Your task to perform on an android device: Open Reddit.com Image 0: 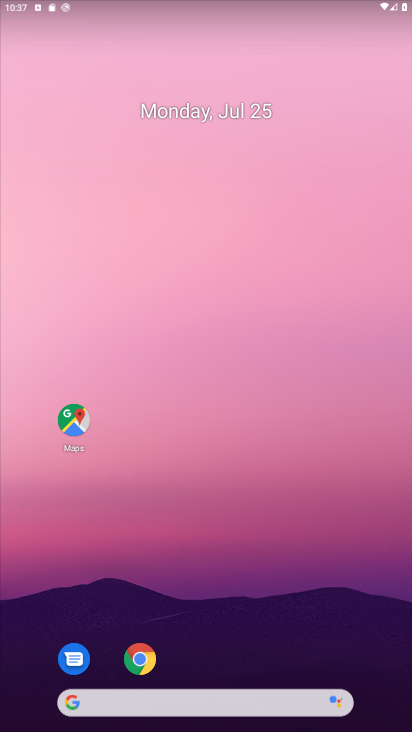
Step 0: click (149, 675)
Your task to perform on an android device: Open Reddit.com Image 1: 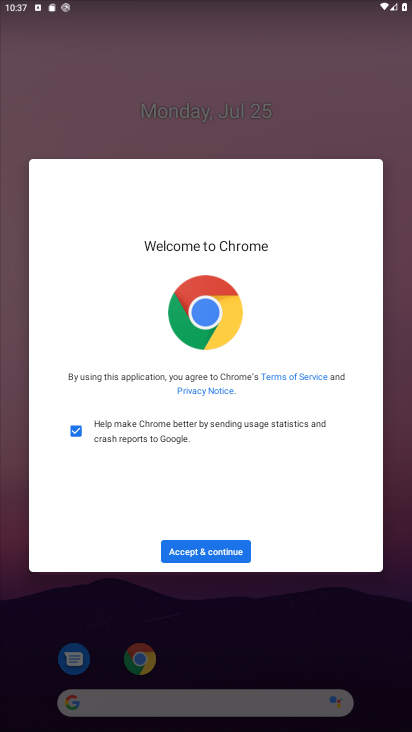
Step 1: click (232, 543)
Your task to perform on an android device: Open Reddit.com Image 2: 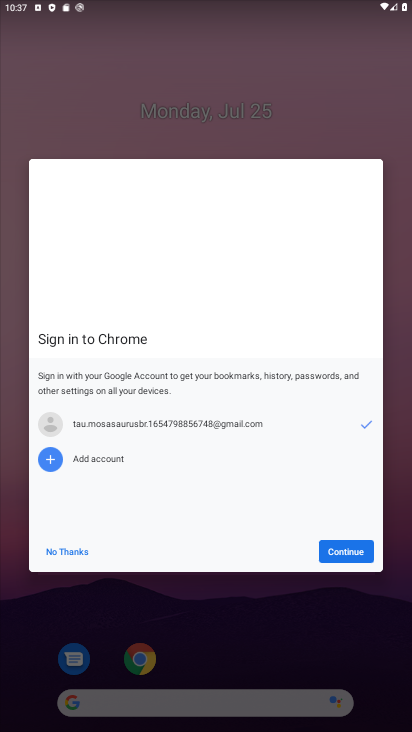
Step 2: click (319, 545)
Your task to perform on an android device: Open Reddit.com Image 3: 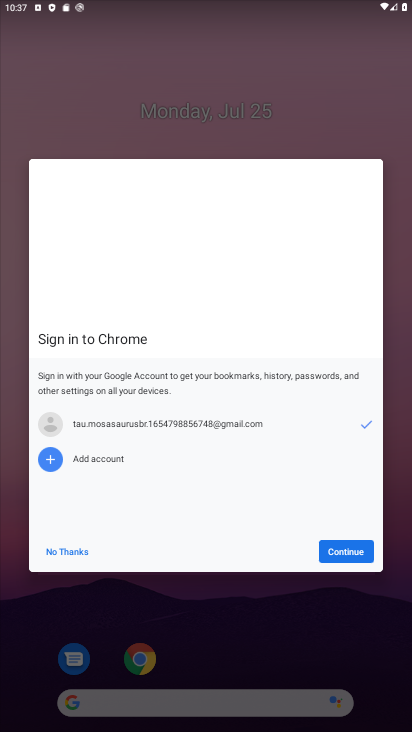
Step 3: click (324, 545)
Your task to perform on an android device: Open Reddit.com Image 4: 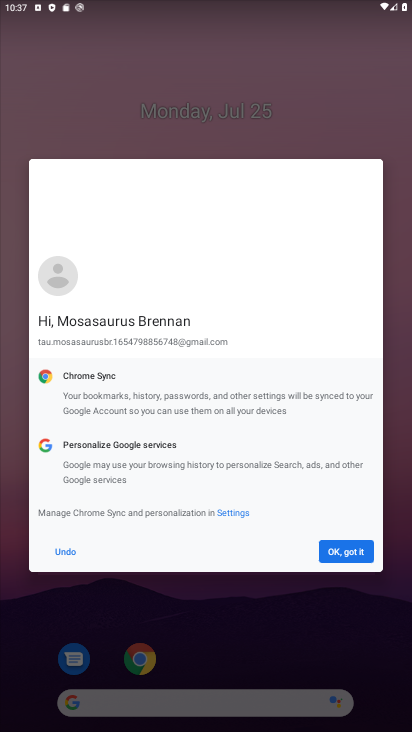
Step 4: click (324, 545)
Your task to perform on an android device: Open Reddit.com Image 5: 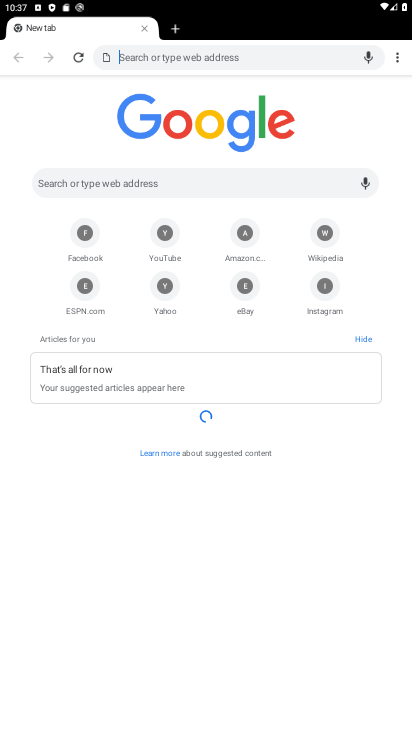
Step 5: click (231, 177)
Your task to perform on an android device: Open Reddit.com Image 6: 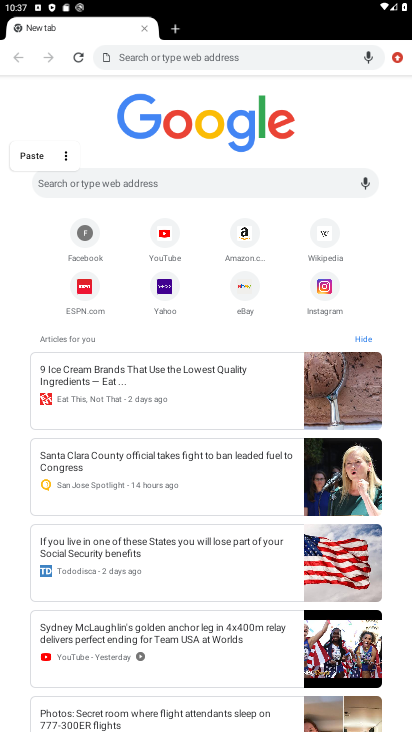
Step 6: type "Reddit.com"
Your task to perform on an android device: Open Reddit.com Image 7: 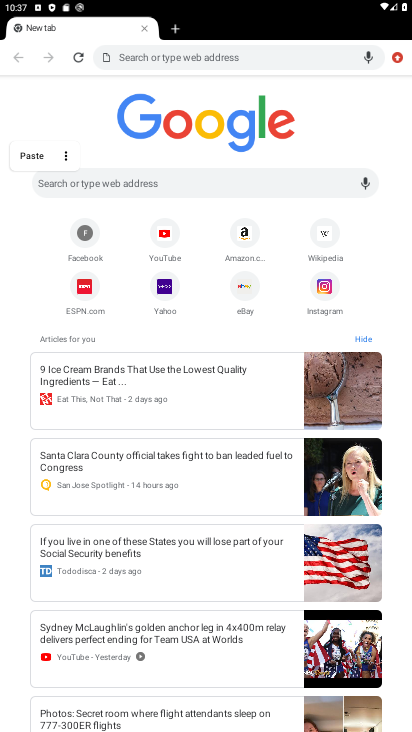
Step 7: click (93, 171)
Your task to perform on an android device: Open Reddit.com Image 8: 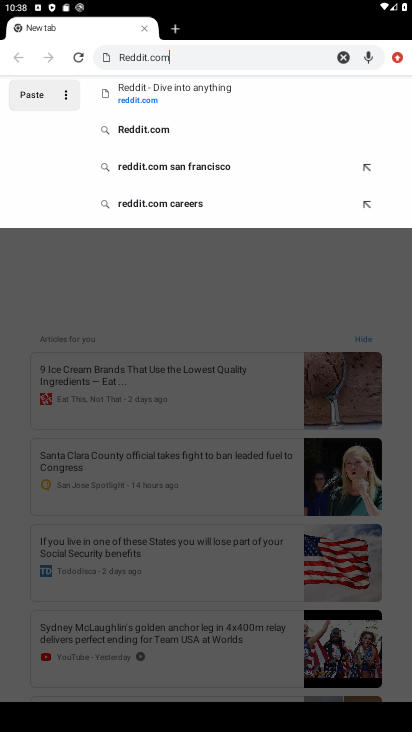
Step 8: click (163, 129)
Your task to perform on an android device: Open Reddit.com Image 9: 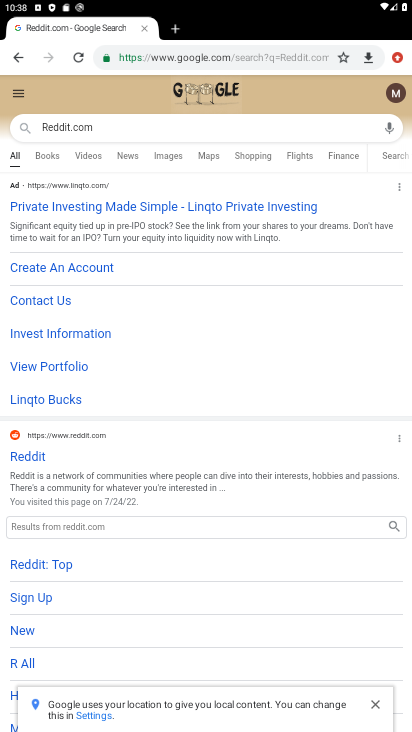
Step 9: click (25, 461)
Your task to perform on an android device: Open Reddit.com Image 10: 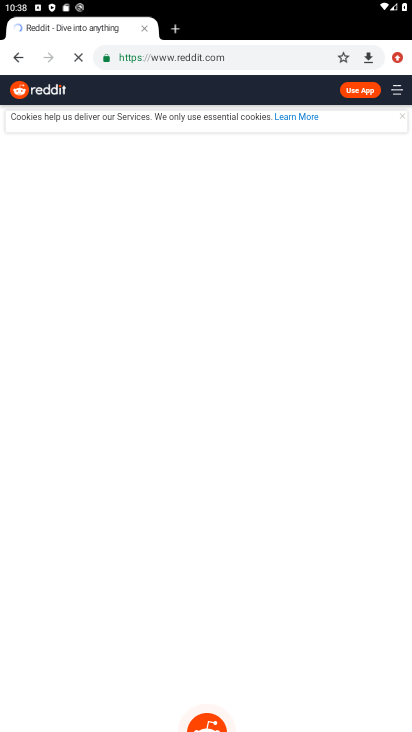
Step 10: task complete